Your task to perform on an android device: turn on notifications settings in the gmail app Image 0: 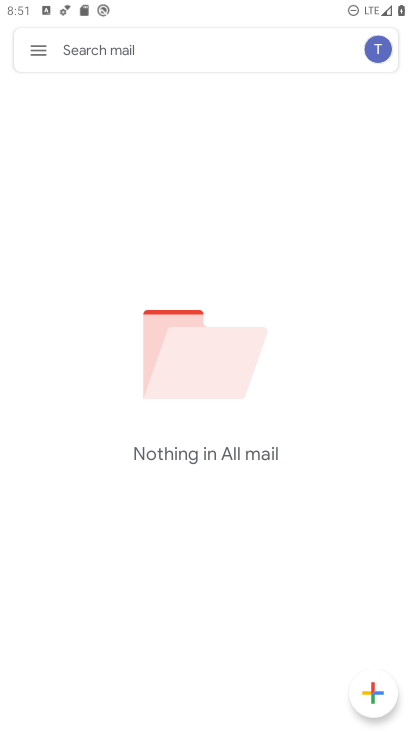
Step 0: press home button
Your task to perform on an android device: turn on notifications settings in the gmail app Image 1: 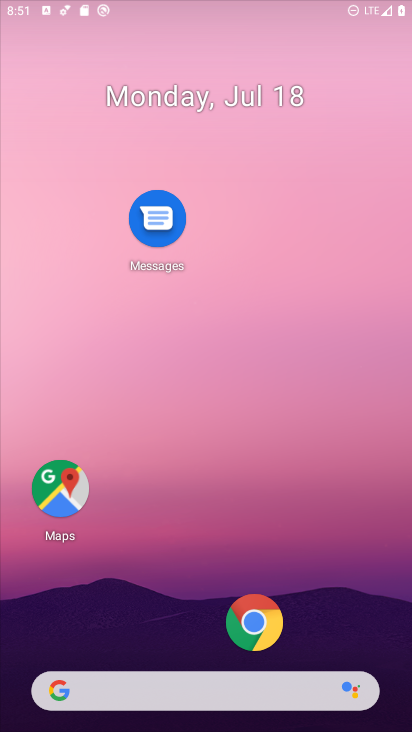
Step 1: drag from (312, 676) to (263, 31)
Your task to perform on an android device: turn on notifications settings in the gmail app Image 2: 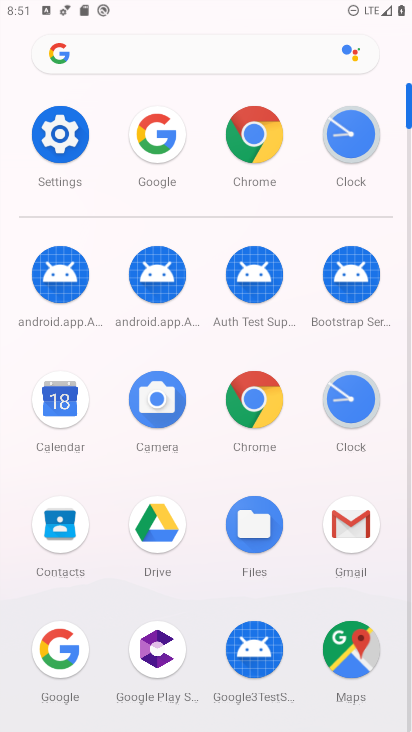
Step 2: click (366, 533)
Your task to perform on an android device: turn on notifications settings in the gmail app Image 3: 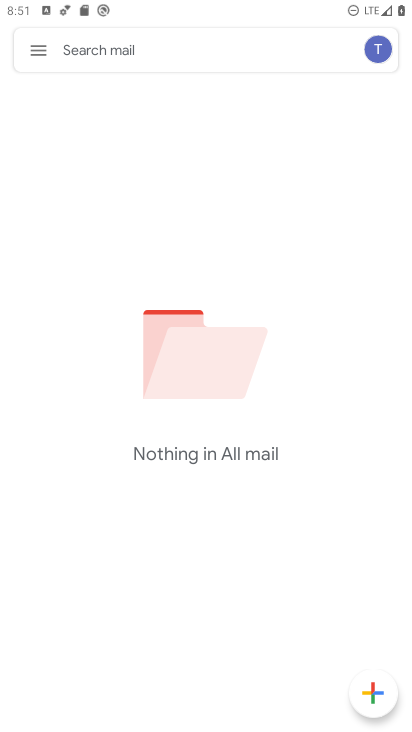
Step 3: click (37, 55)
Your task to perform on an android device: turn on notifications settings in the gmail app Image 4: 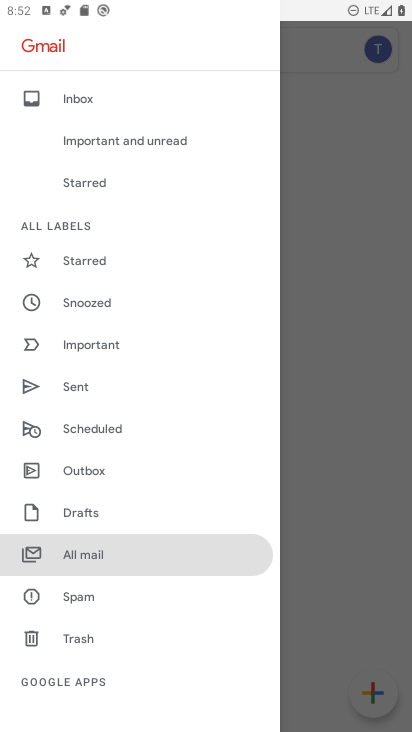
Step 4: drag from (111, 617) to (146, 228)
Your task to perform on an android device: turn on notifications settings in the gmail app Image 5: 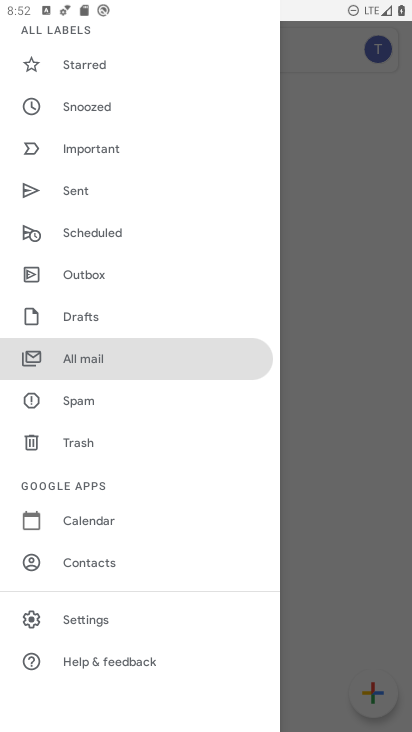
Step 5: click (119, 625)
Your task to perform on an android device: turn on notifications settings in the gmail app Image 6: 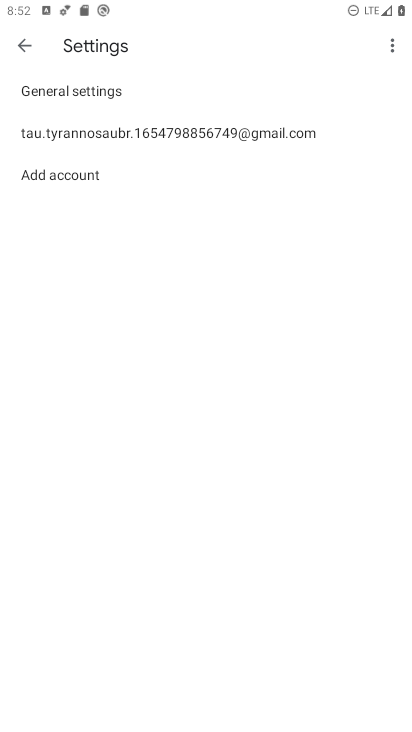
Step 6: click (100, 146)
Your task to perform on an android device: turn on notifications settings in the gmail app Image 7: 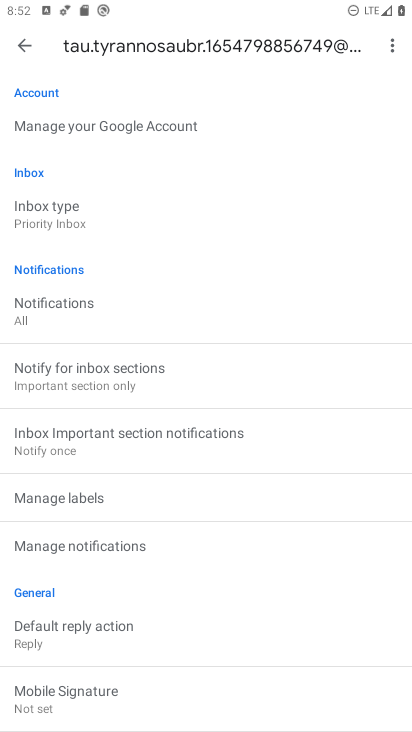
Step 7: click (28, 48)
Your task to perform on an android device: turn on notifications settings in the gmail app Image 8: 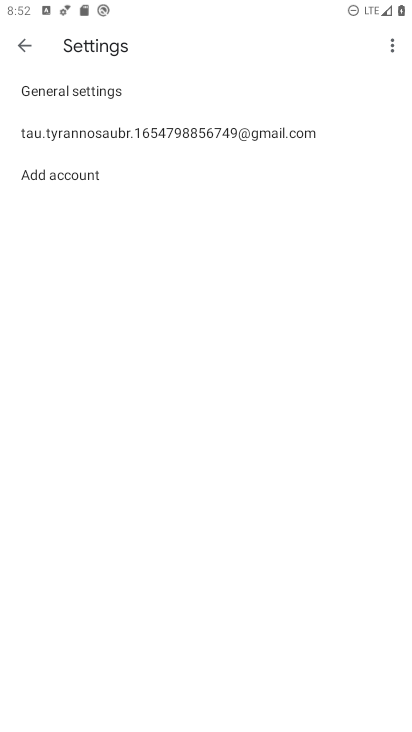
Step 8: click (79, 95)
Your task to perform on an android device: turn on notifications settings in the gmail app Image 9: 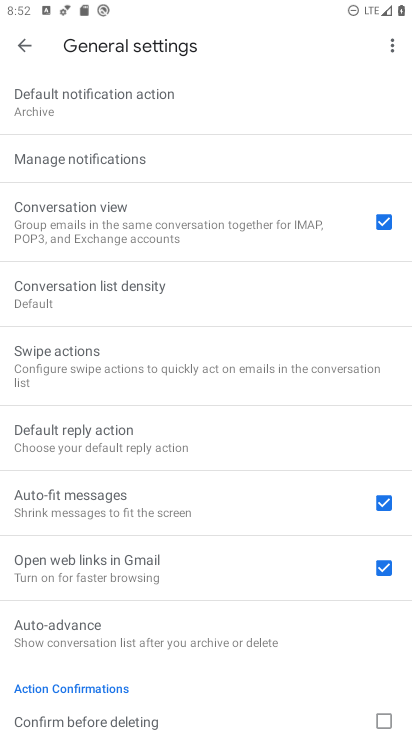
Step 9: click (103, 160)
Your task to perform on an android device: turn on notifications settings in the gmail app Image 10: 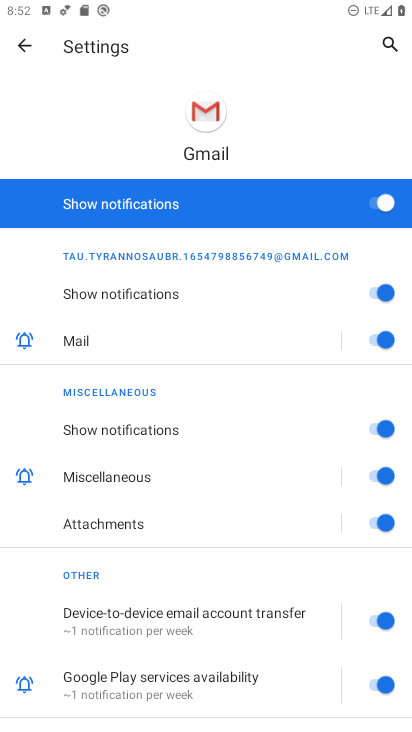
Step 10: task complete